Your task to perform on an android device: read, delete, or share a saved page in the chrome app Image 0: 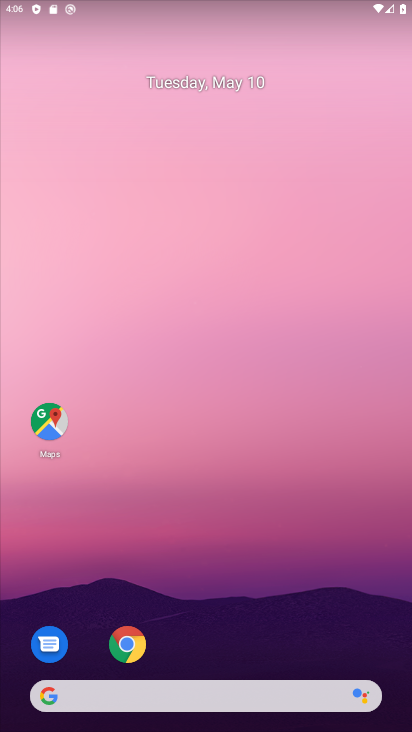
Step 0: click (126, 644)
Your task to perform on an android device: read, delete, or share a saved page in the chrome app Image 1: 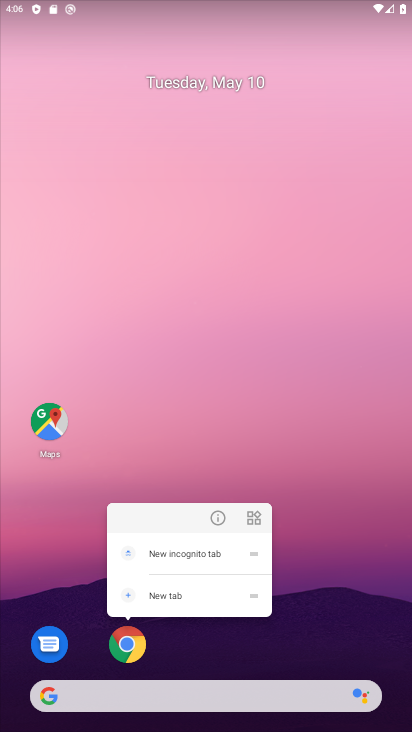
Step 1: click (128, 651)
Your task to perform on an android device: read, delete, or share a saved page in the chrome app Image 2: 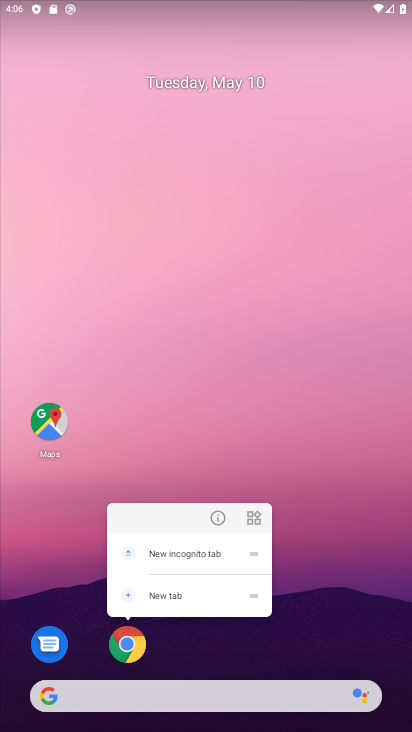
Step 2: click (128, 649)
Your task to perform on an android device: read, delete, or share a saved page in the chrome app Image 3: 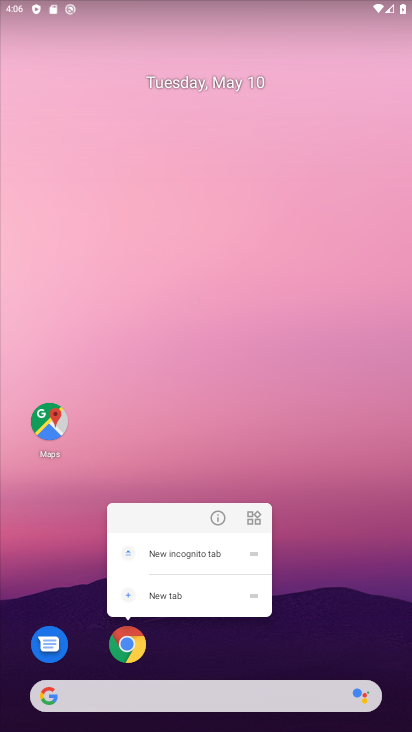
Step 3: click (127, 637)
Your task to perform on an android device: read, delete, or share a saved page in the chrome app Image 4: 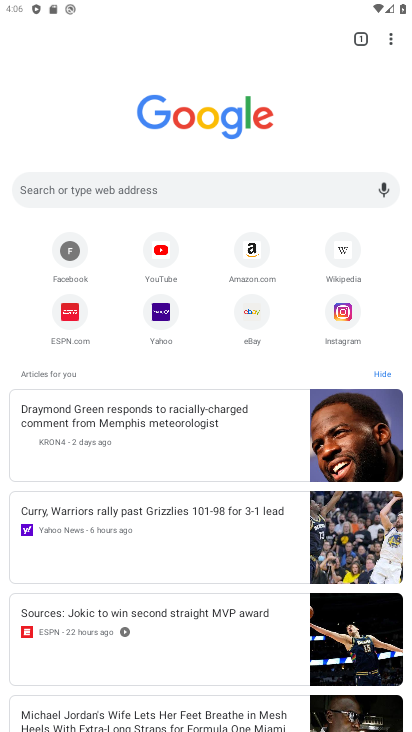
Step 4: click (391, 42)
Your task to perform on an android device: read, delete, or share a saved page in the chrome app Image 5: 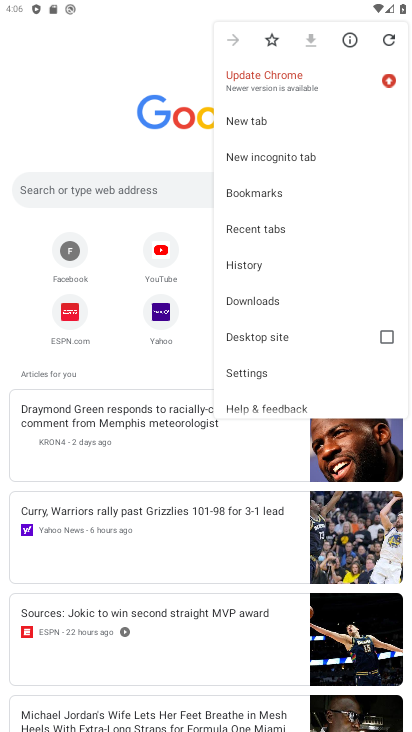
Step 5: click (252, 302)
Your task to perform on an android device: read, delete, or share a saved page in the chrome app Image 6: 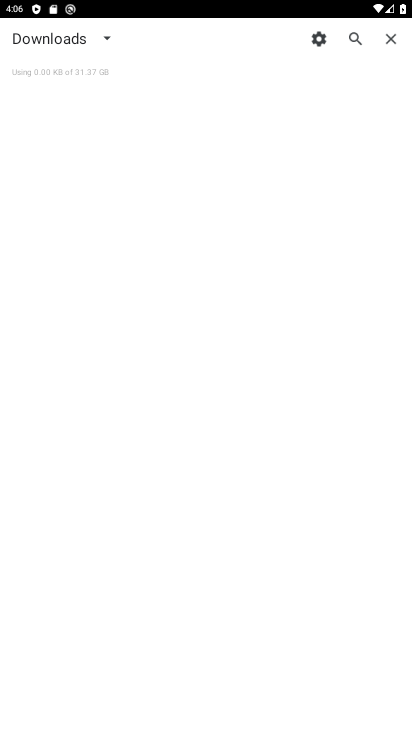
Step 6: click (108, 47)
Your task to perform on an android device: read, delete, or share a saved page in the chrome app Image 7: 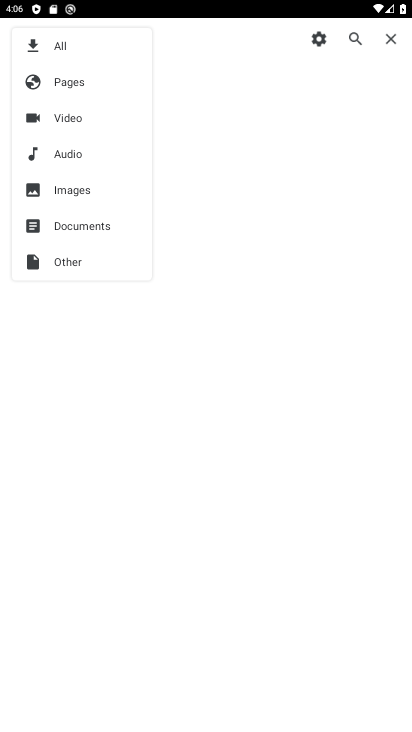
Step 7: click (63, 86)
Your task to perform on an android device: read, delete, or share a saved page in the chrome app Image 8: 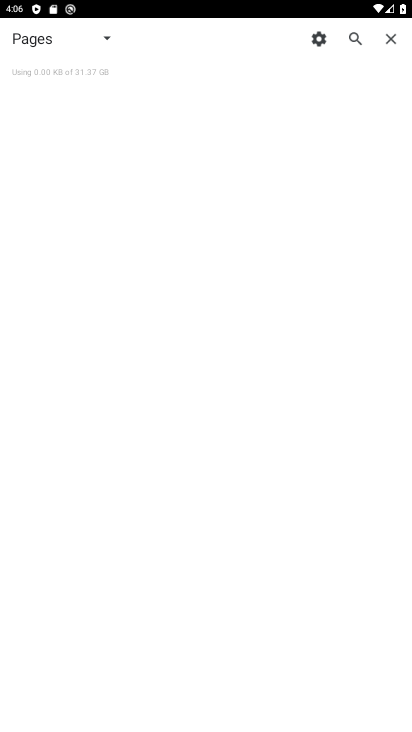
Step 8: task complete